Your task to perform on an android device: turn off notifications in google photos Image 0: 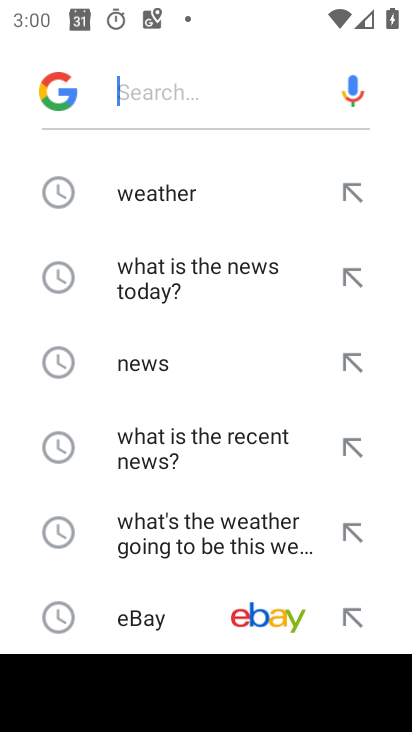
Step 0: press home button
Your task to perform on an android device: turn off notifications in google photos Image 1: 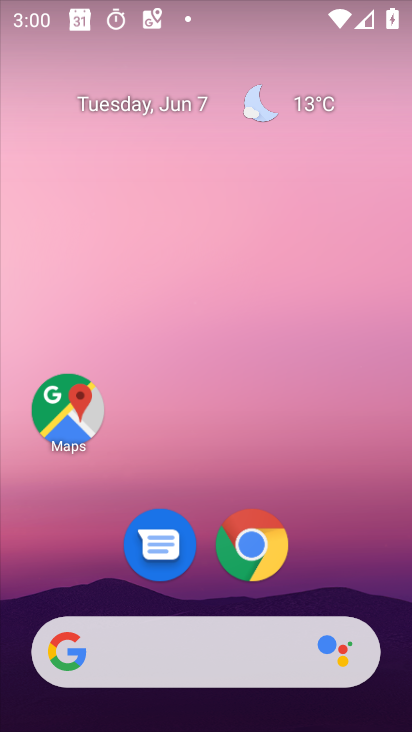
Step 1: drag from (335, 522) to (142, 13)
Your task to perform on an android device: turn off notifications in google photos Image 2: 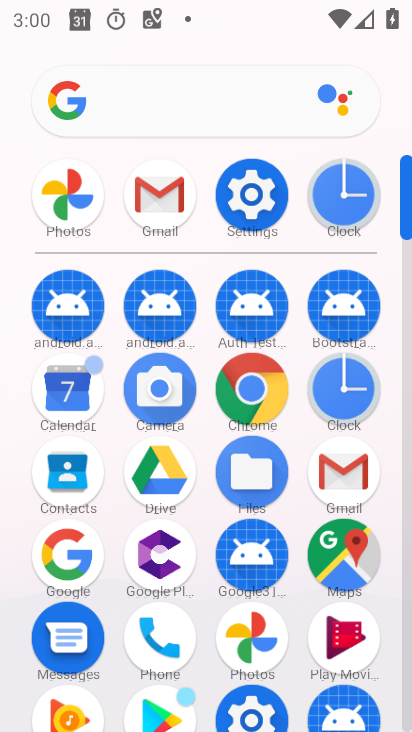
Step 2: click (80, 206)
Your task to perform on an android device: turn off notifications in google photos Image 3: 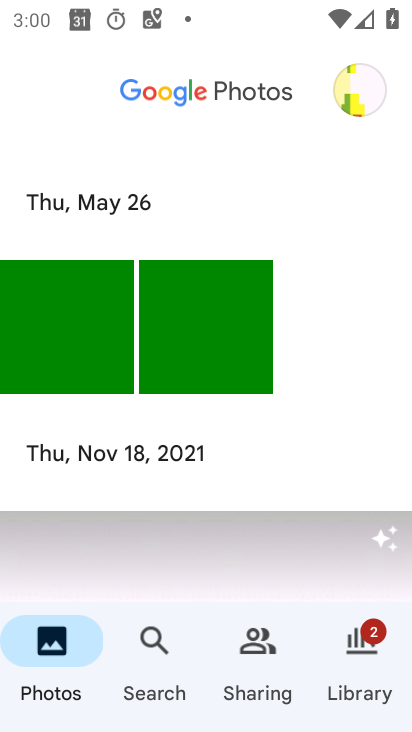
Step 3: click (359, 78)
Your task to perform on an android device: turn off notifications in google photos Image 4: 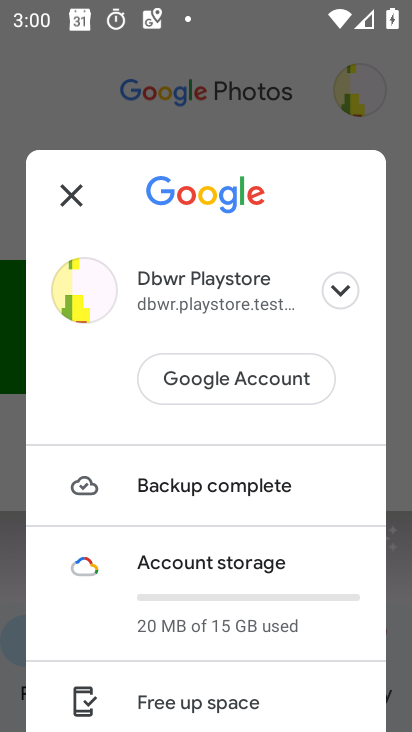
Step 4: drag from (211, 665) to (229, 52)
Your task to perform on an android device: turn off notifications in google photos Image 5: 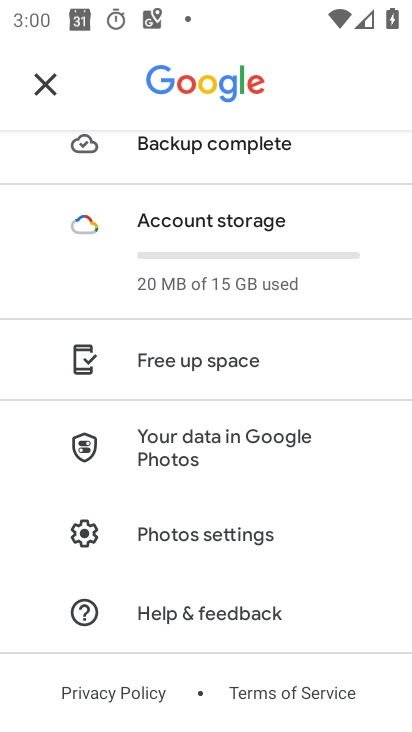
Step 5: click (198, 519)
Your task to perform on an android device: turn off notifications in google photos Image 6: 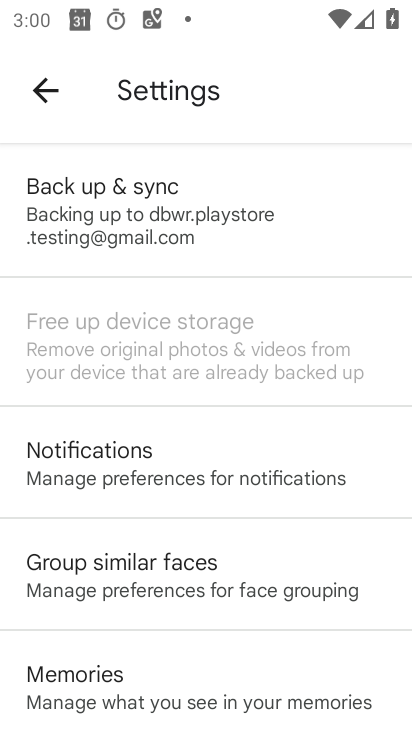
Step 6: click (150, 474)
Your task to perform on an android device: turn off notifications in google photos Image 7: 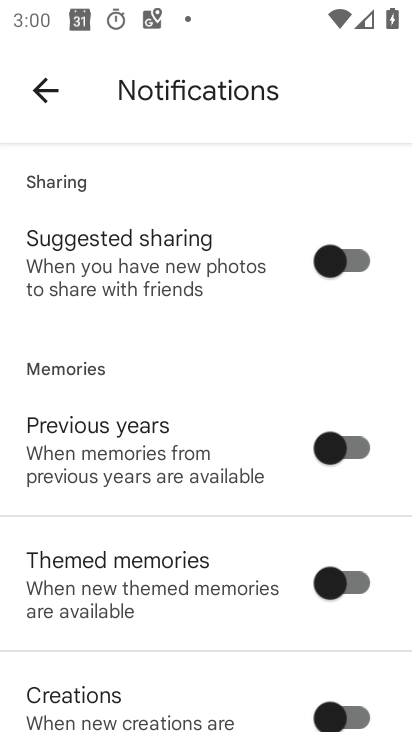
Step 7: task complete